Your task to perform on an android device: open sync settings in chrome Image 0: 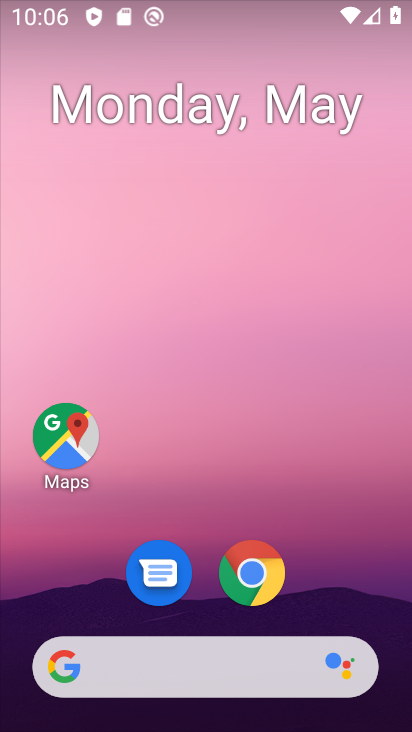
Step 0: click (267, 566)
Your task to perform on an android device: open sync settings in chrome Image 1: 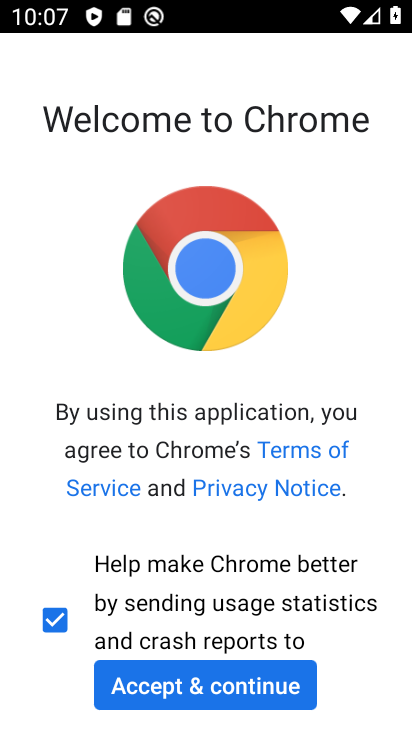
Step 1: click (187, 698)
Your task to perform on an android device: open sync settings in chrome Image 2: 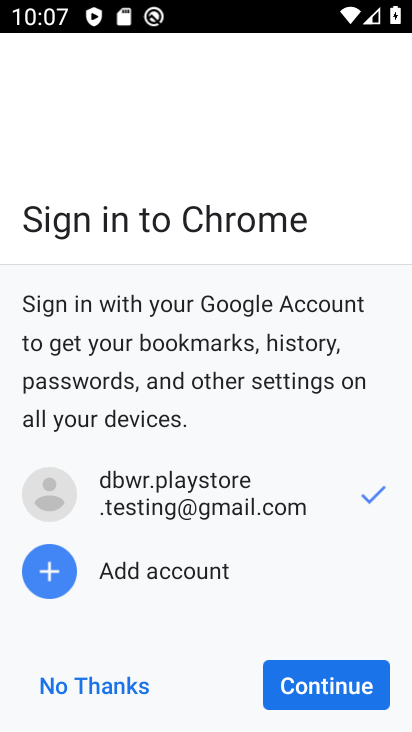
Step 2: click (347, 699)
Your task to perform on an android device: open sync settings in chrome Image 3: 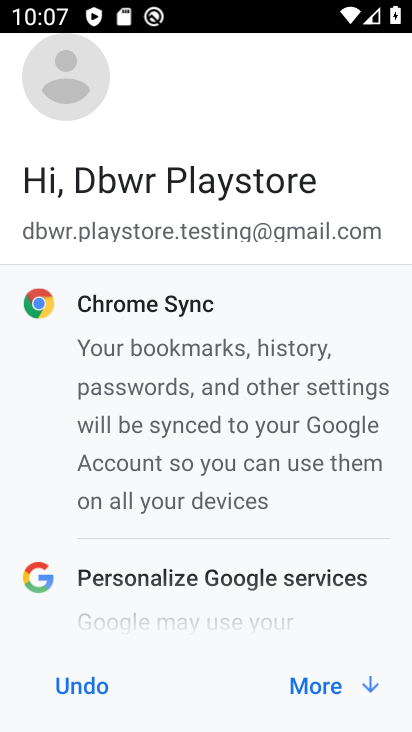
Step 3: click (322, 684)
Your task to perform on an android device: open sync settings in chrome Image 4: 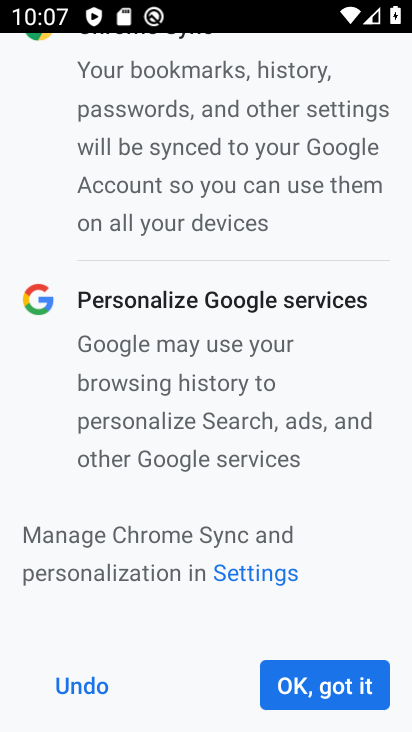
Step 4: click (319, 686)
Your task to perform on an android device: open sync settings in chrome Image 5: 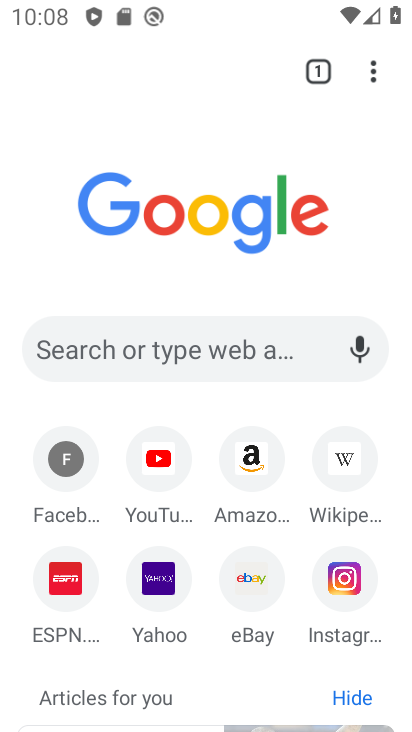
Step 5: click (373, 73)
Your task to perform on an android device: open sync settings in chrome Image 6: 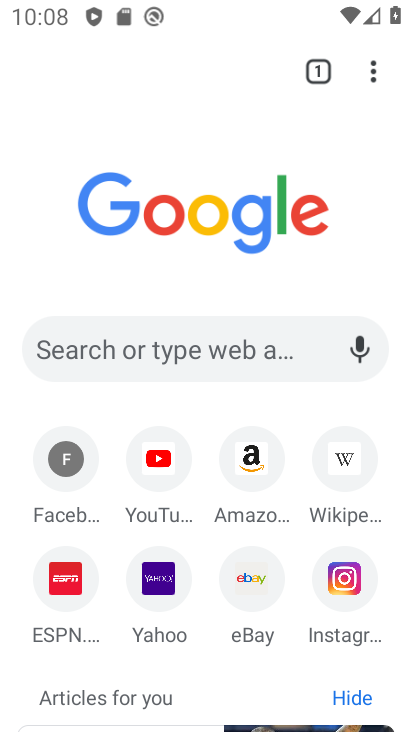
Step 6: click (372, 70)
Your task to perform on an android device: open sync settings in chrome Image 7: 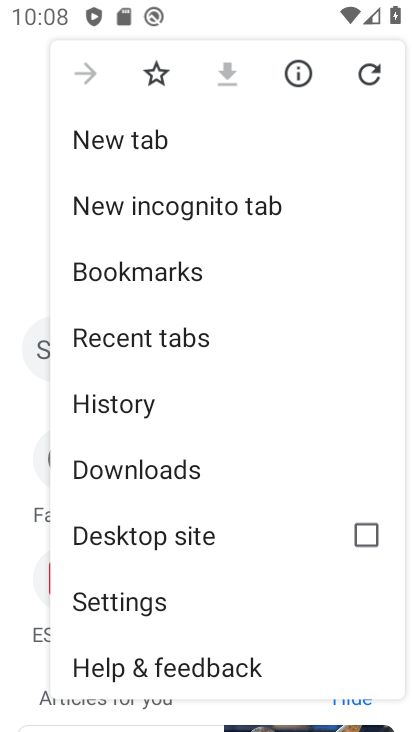
Step 7: click (189, 610)
Your task to perform on an android device: open sync settings in chrome Image 8: 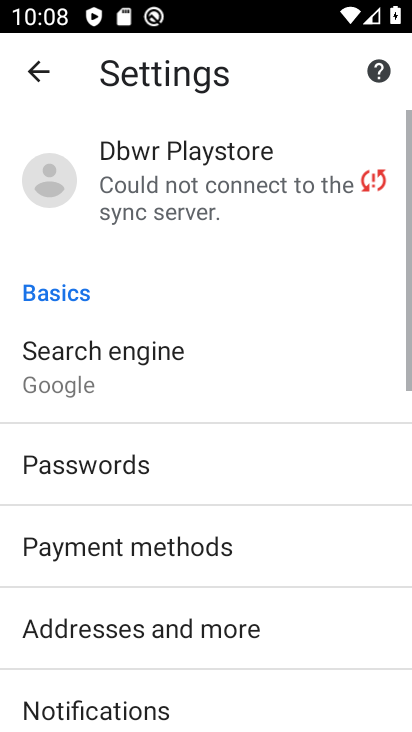
Step 8: click (192, 155)
Your task to perform on an android device: open sync settings in chrome Image 9: 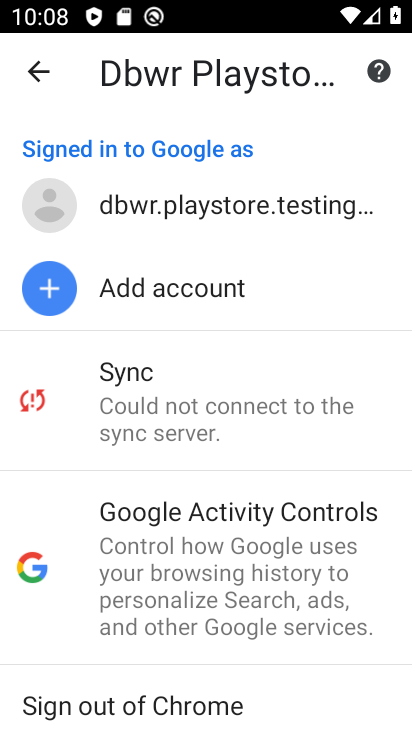
Step 9: task complete